Your task to perform on an android device: See recent photos Image 0: 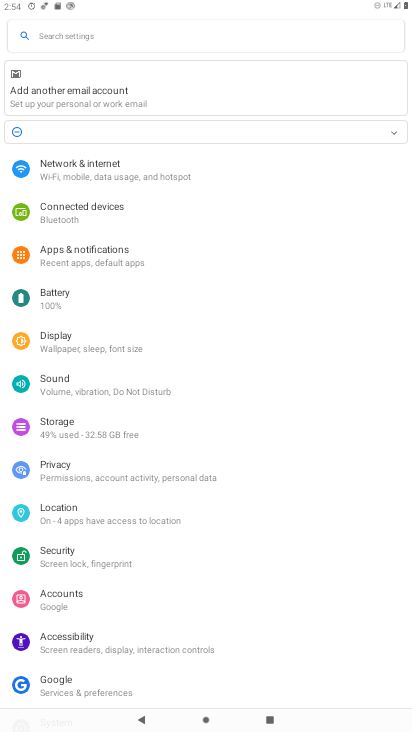
Step 0: press home button
Your task to perform on an android device: See recent photos Image 1: 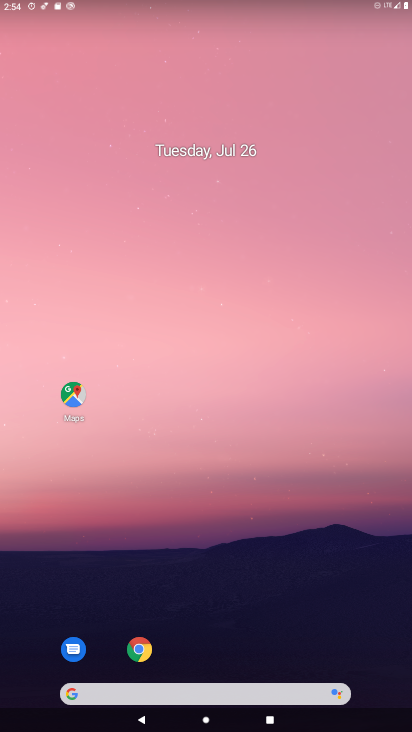
Step 1: drag from (308, 635) to (141, 31)
Your task to perform on an android device: See recent photos Image 2: 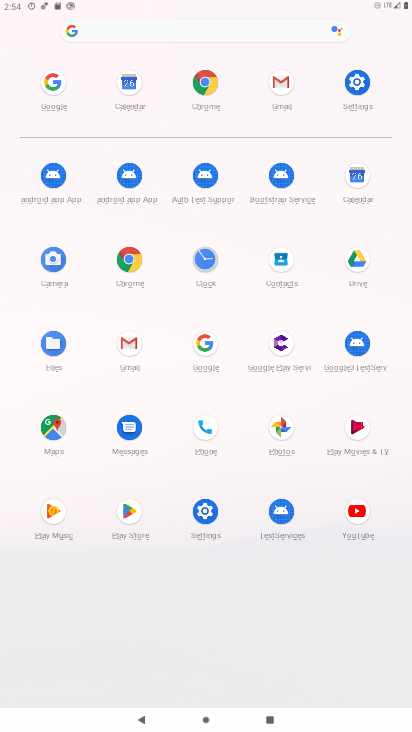
Step 2: click (196, 348)
Your task to perform on an android device: See recent photos Image 3: 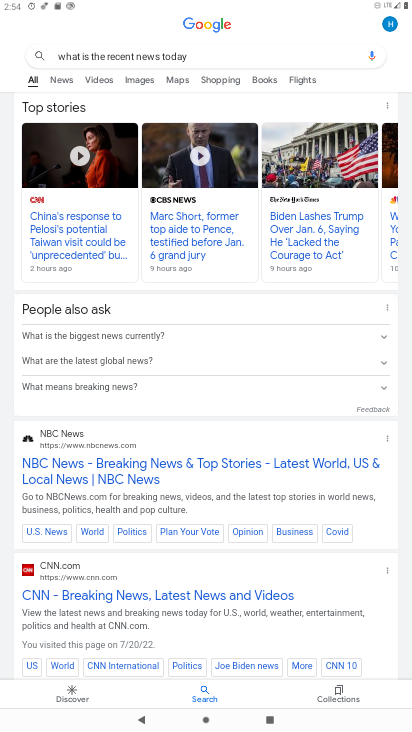
Step 3: press back button
Your task to perform on an android device: See recent photos Image 4: 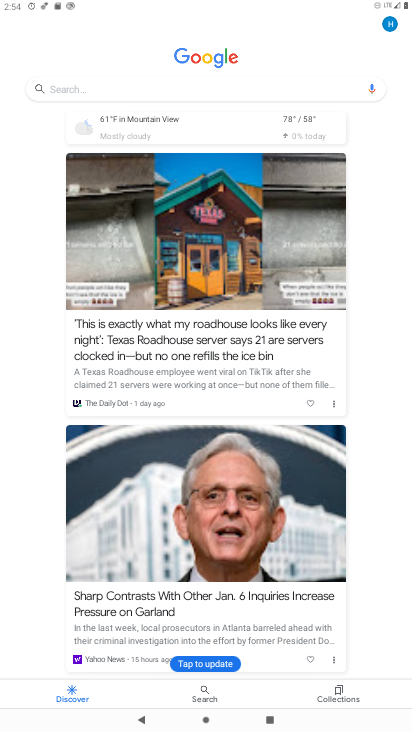
Step 4: click (115, 95)
Your task to perform on an android device: See recent photos Image 5: 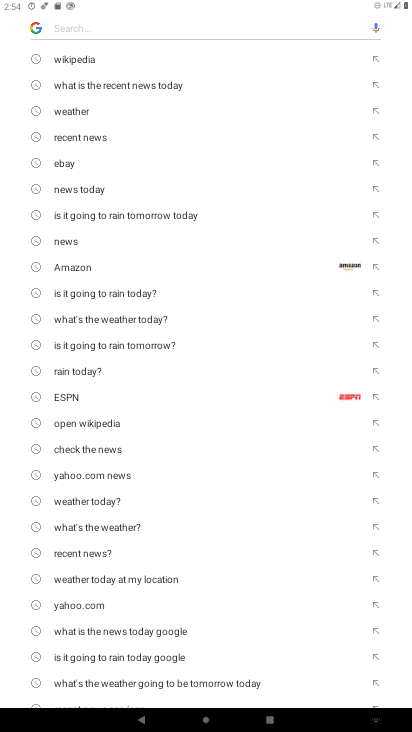
Step 5: type "See recent photos"
Your task to perform on an android device: See recent photos Image 6: 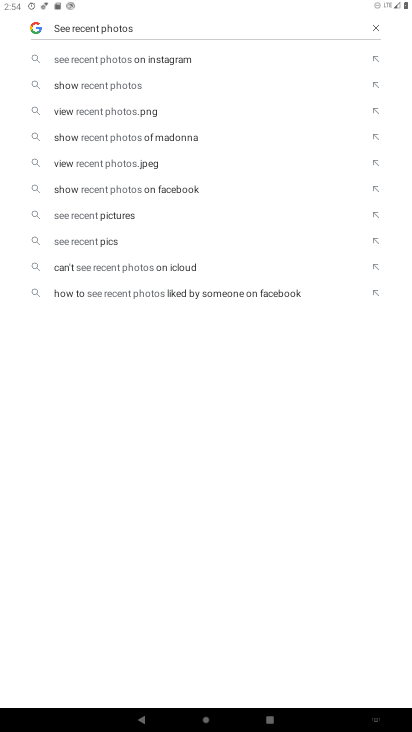
Step 6: task complete